Your task to perform on an android device: turn on sleep mode Image 0: 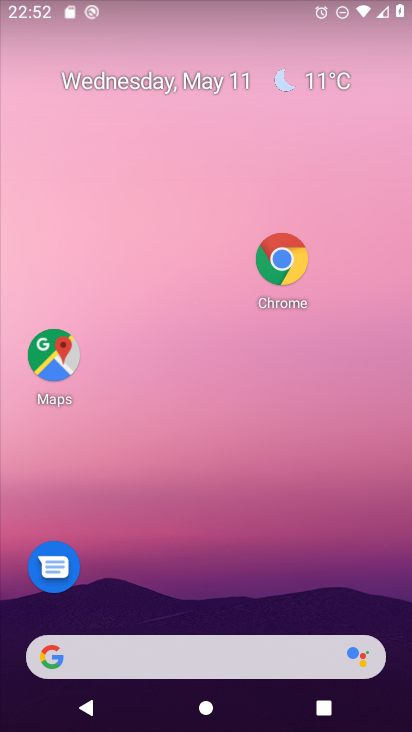
Step 0: drag from (157, 659) to (296, 98)
Your task to perform on an android device: turn on sleep mode Image 1: 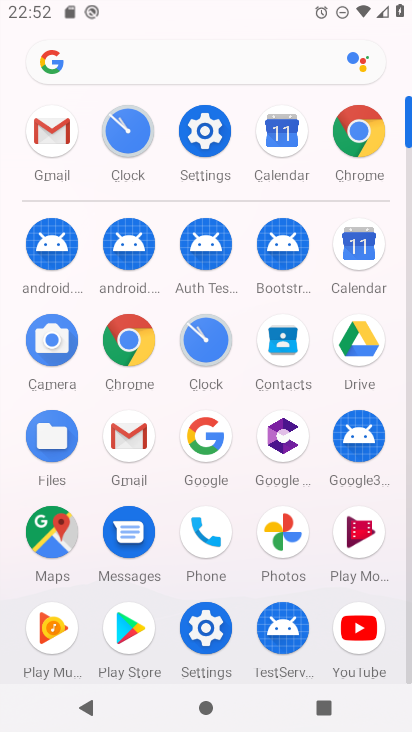
Step 1: click (219, 134)
Your task to perform on an android device: turn on sleep mode Image 2: 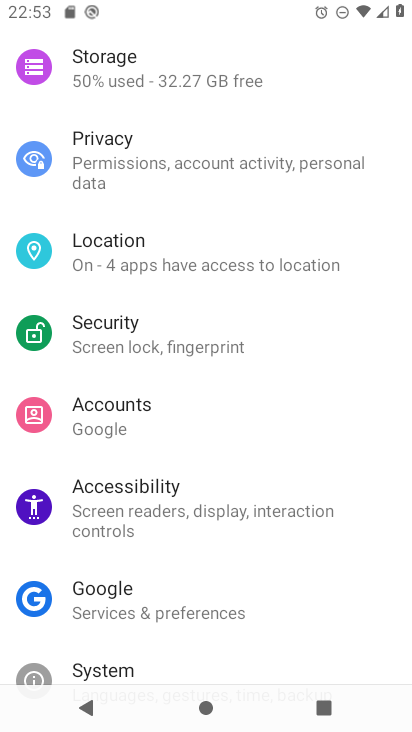
Step 2: drag from (189, 465) to (307, 236)
Your task to perform on an android device: turn on sleep mode Image 3: 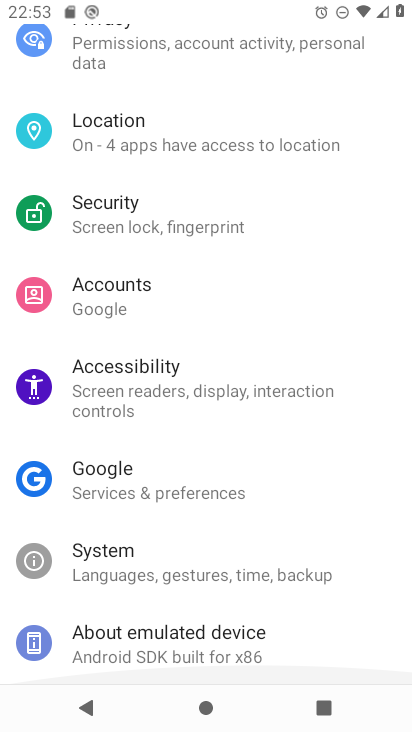
Step 3: drag from (304, 205) to (160, 574)
Your task to perform on an android device: turn on sleep mode Image 4: 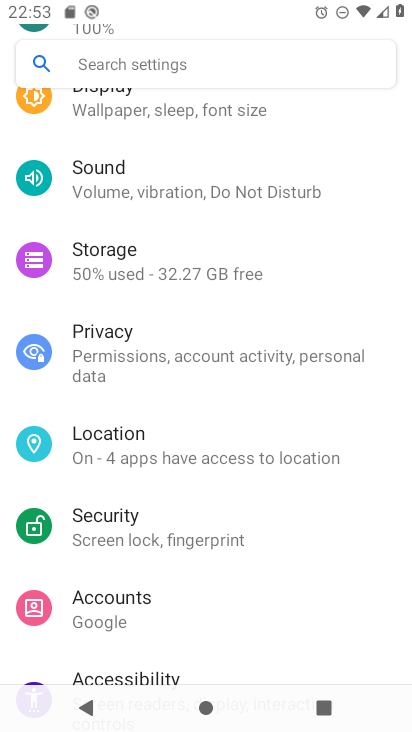
Step 4: click (189, 102)
Your task to perform on an android device: turn on sleep mode Image 5: 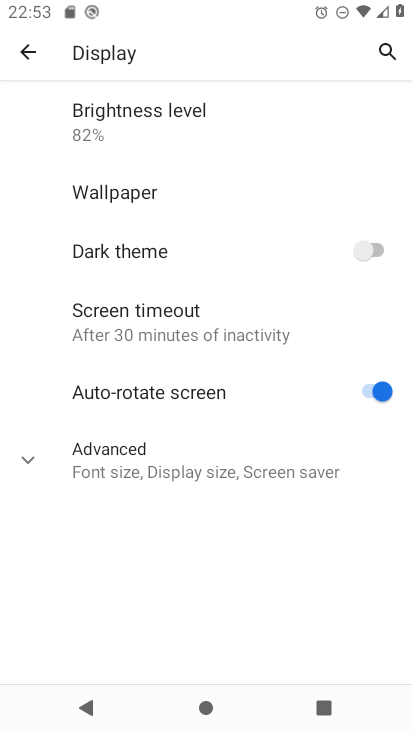
Step 5: task complete